Your task to perform on an android device: read, delete, or share a saved page in the chrome app Image 0: 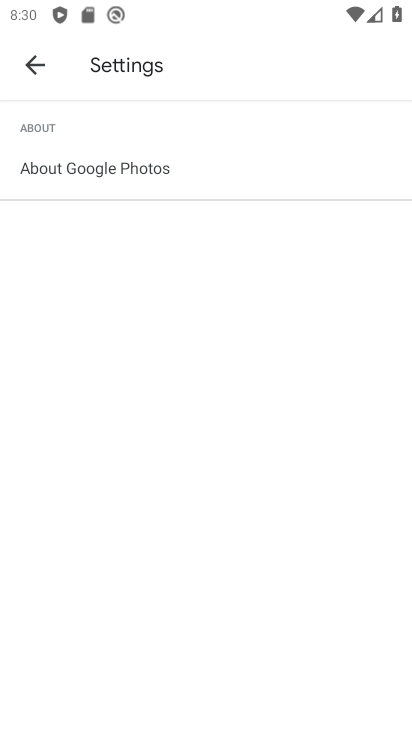
Step 0: press home button
Your task to perform on an android device: read, delete, or share a saved page in the chrome app Image 1: 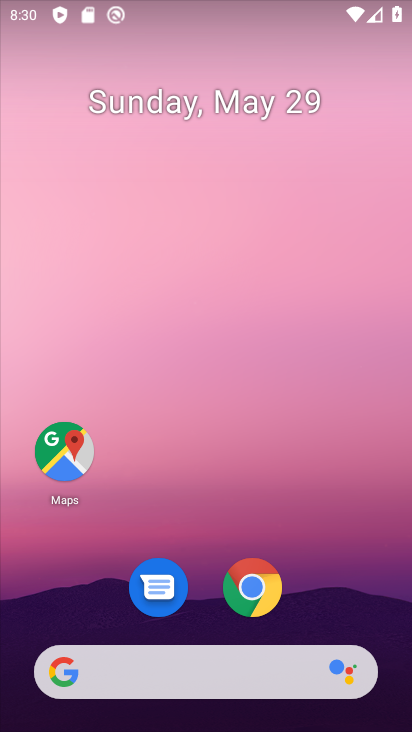
Step 1: click (237, 585)
Your task to perform on an android device: read, delete, or share a saved page in the chrome app Image 2: 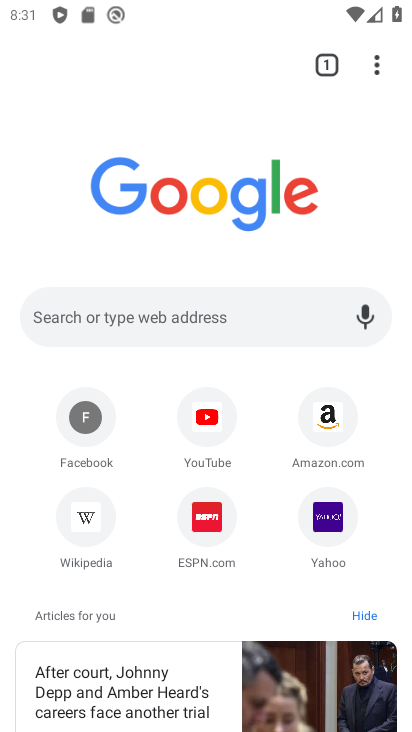
Step 2: click (365, 52)
Your task to perform on an android device: read, delete, or share a saved page in the chrome app Image 3: 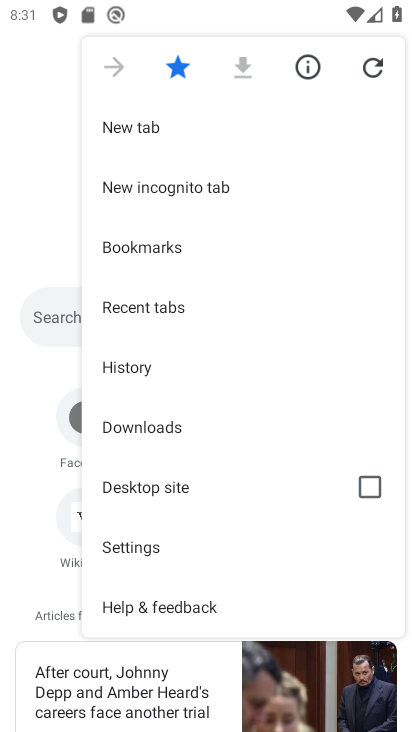
Step 3: click (130, 434)
Your task to perform on an android device: read, delete, or share a saved page in the chrome app Image 4: 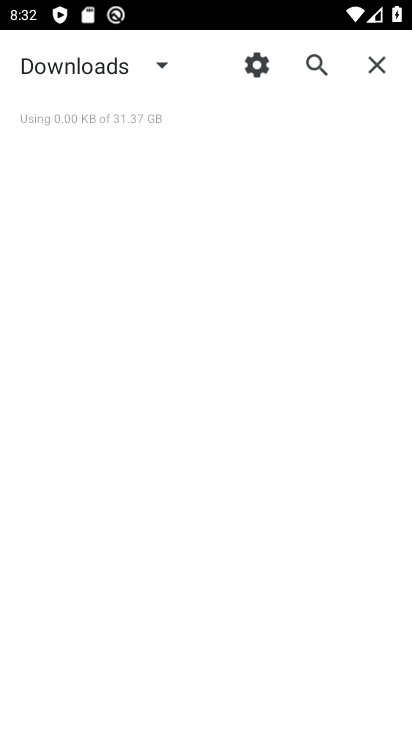
Step 4: task complete